Your task to perform on an android device: Open the map Image 0: 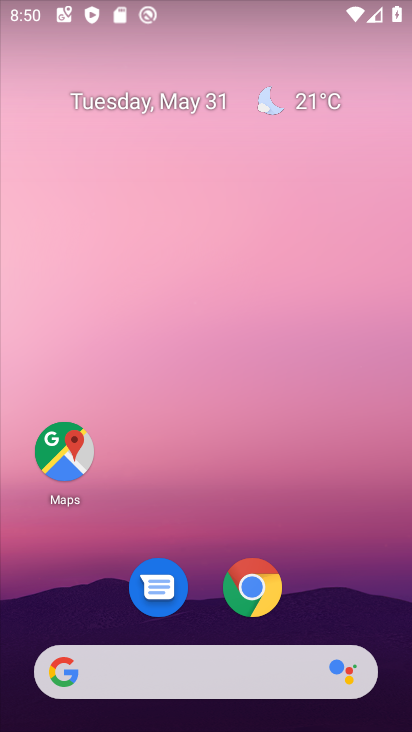
Step 0: click (60, 443)
Your task to perform on an android device: Open the map Image 1: 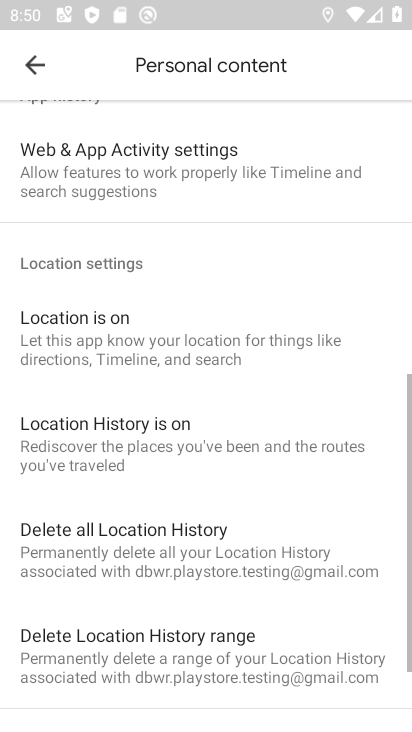
Step 1: click (36, 64)
Your task to perform on an android device: Open the map Image 2: 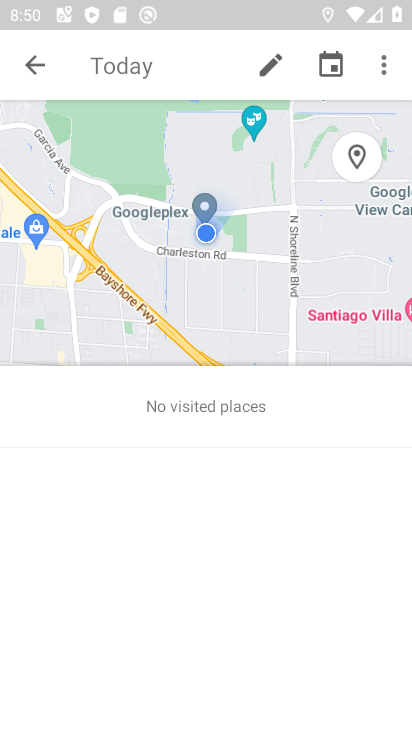
Step 2: task complete